Your task to perform on an android device: Open Yahoo.com Image 0: 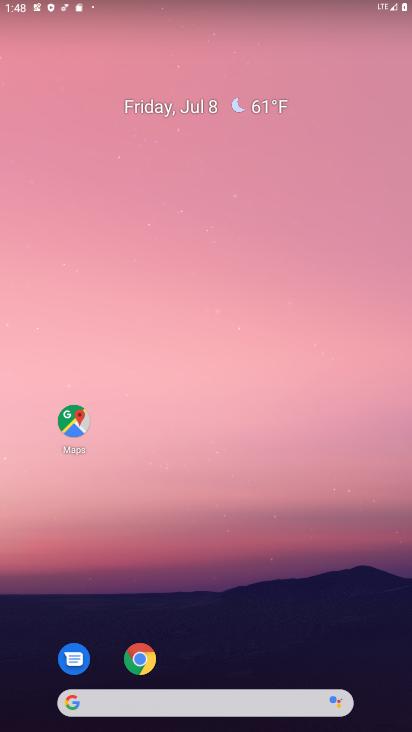
Step 0: click (148, 669)
Your task to perform on an android device: Open Yahoo.com Image 1: 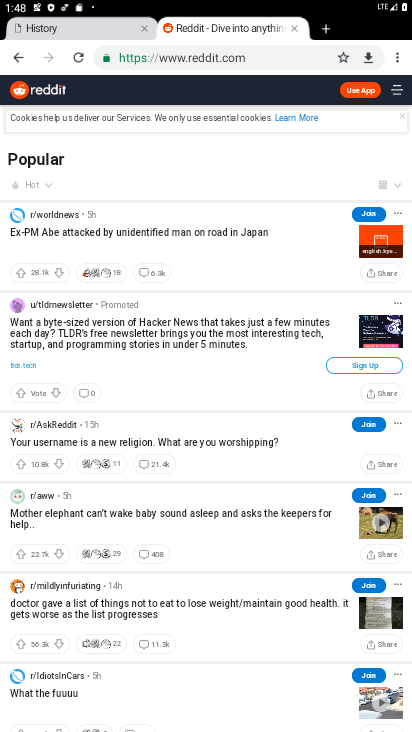
Step 1: click (327, 34)
Your task to perform on an android device: Open Yahoo.com Image 2: 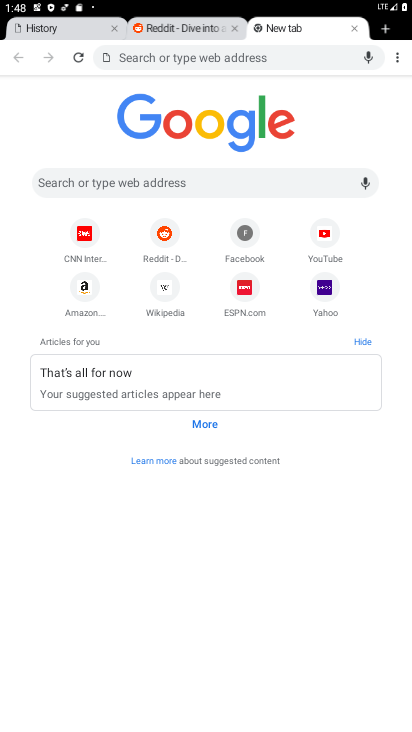
Step 2: click (313, 286)
Your task to perform on an android device: Open Yahoo.com Image 3: 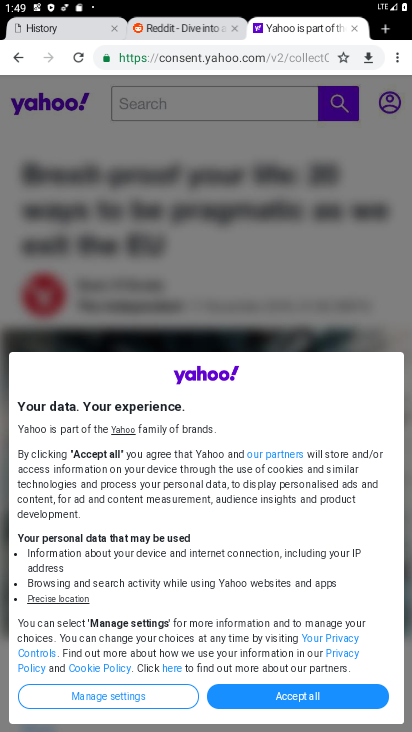
Step 3: click (329, 687)
Your task to perform on an android device: Open Yahoo.com Image 4: 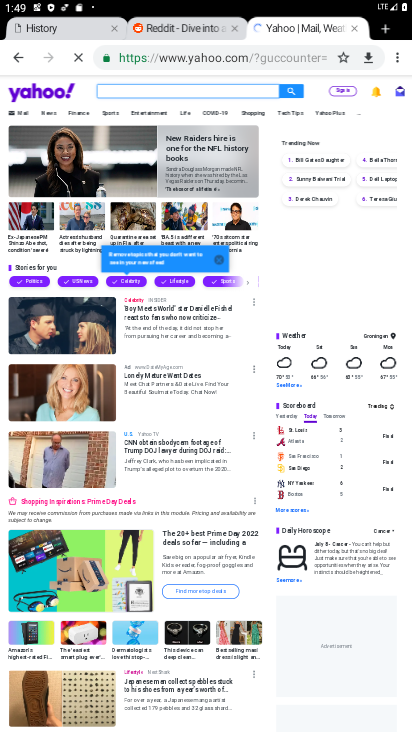
Step 4: task complete